Your task to perform on an android device: change the clock display to digital Image 0: 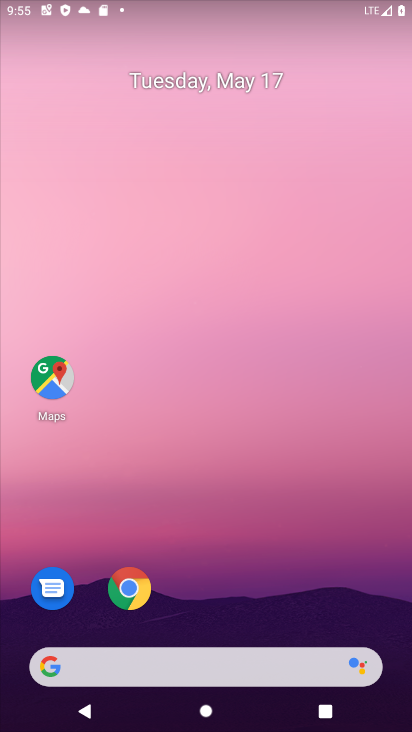
Step 0: drag from (214, 638) to (169, 82)
Your task to perform on an android device: change the clock display to digital Image 1: 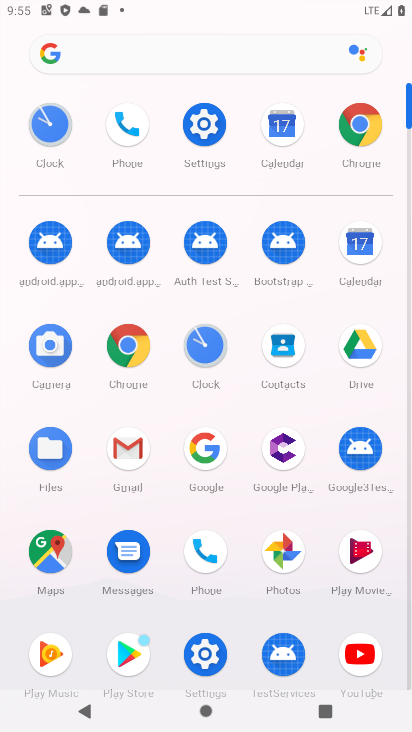
Step 1: click (213, 341)
Your task to perform on an android device: change the clock display to digital Image 2: 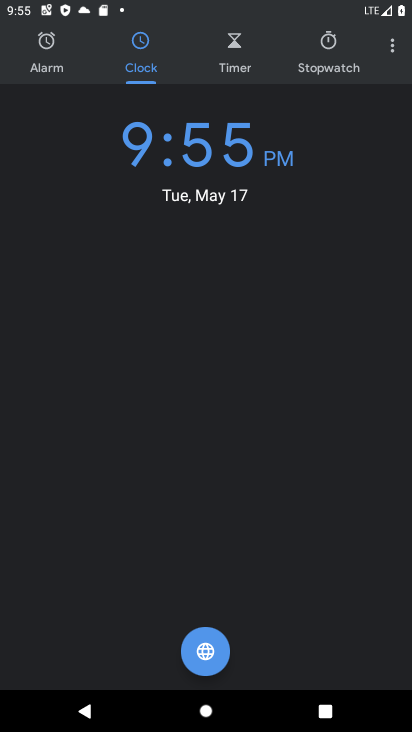
Step 2: click (393, 47)
Your task to perform on an android device: change the clock display to digital Image 3: 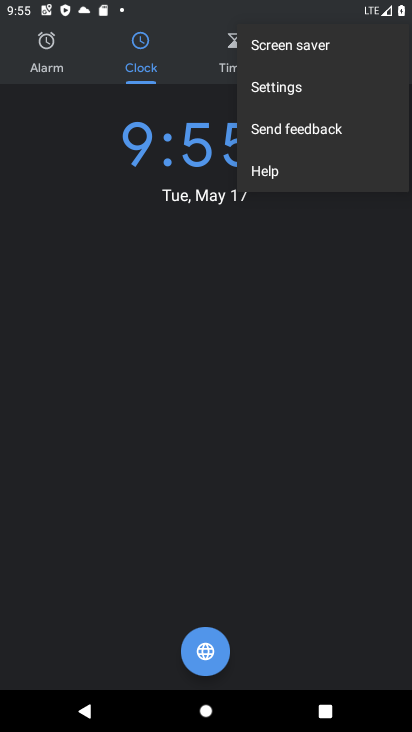
Step 3: click (285, 99)
Your task to perform on an android device: change the clock display to digital Image 4: 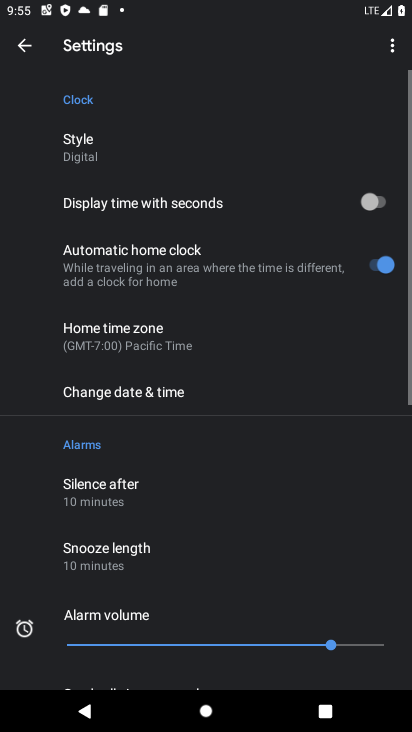
Step 4: click (90, 134)
Your task to perform on an android device: change the clock display to digital Image 5: 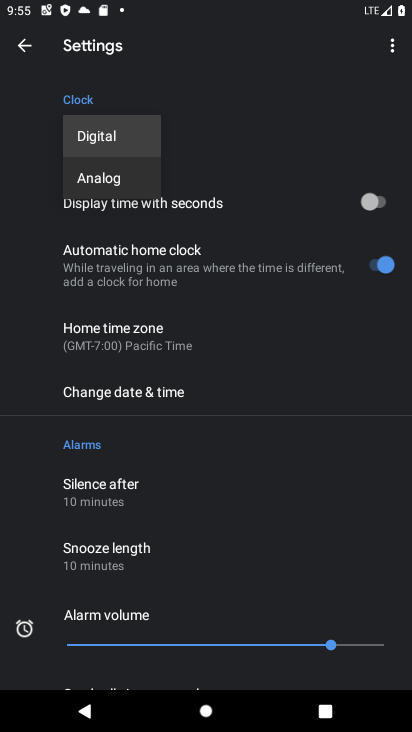
Step 5: task complete